Your task to perform on an android device: Turn on the flashlight Image 0: 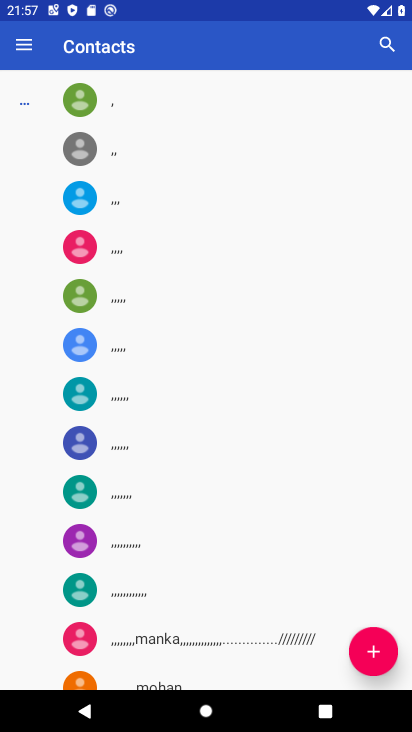
Step 0: press home button
Your task to perform on an android device: Turn on the flashlight Image 1: 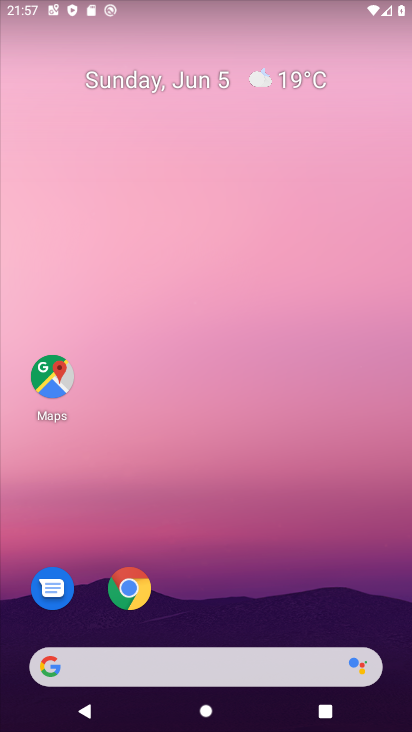
Step 1: drag from (233, 1) to (239, 355)
Your task to perform on an android device: Turn on the flashlight Image 2: 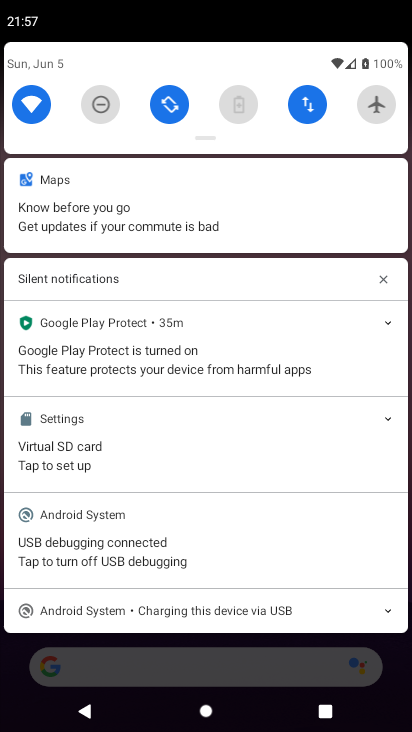
Step 2: drag from (201, 57) to (212, 291)
Your task to perform on an android device: Turn on the flashlight Image 3: 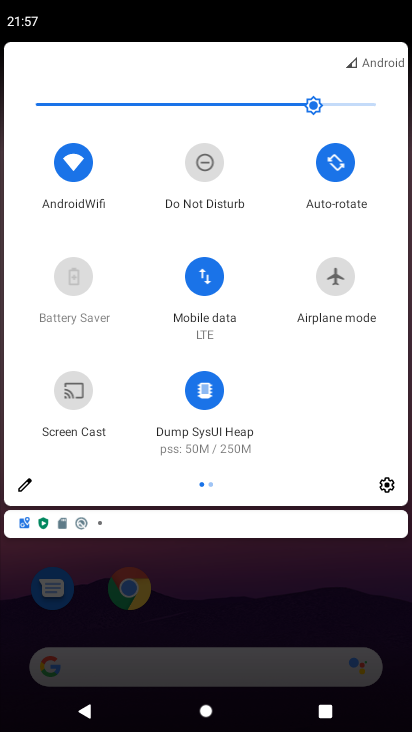
Step 3: click (16, 486)
Your task to perform on an android device: Turn on the flashlight Image 4: 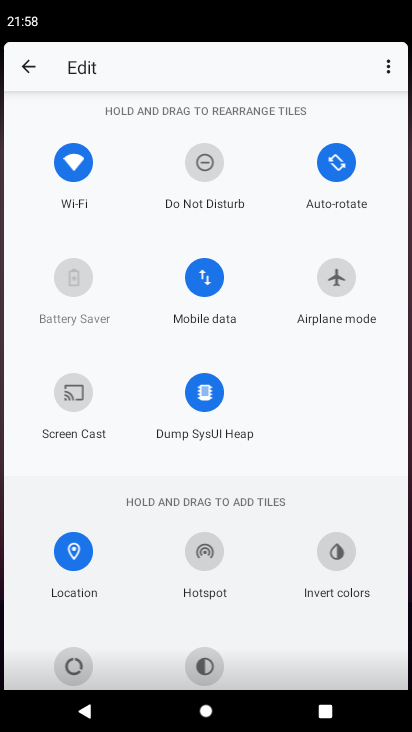
Step 4: task complete